Your task to perform on an android device: Open the map Image 0: 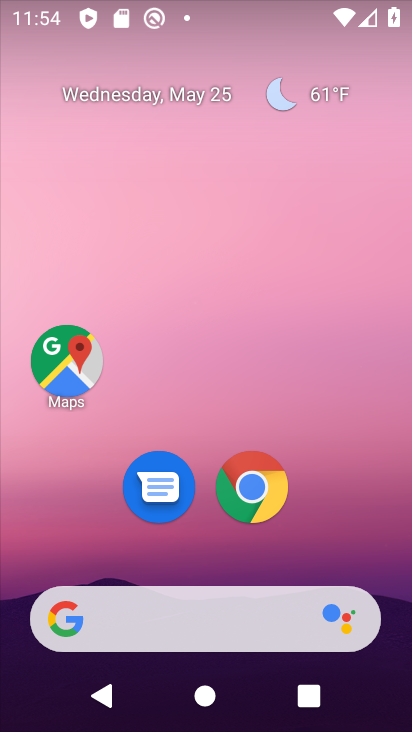
Step 0: drag from (346, 698) to (264, 140)
Your task to perform on an android device: Open the map Image 1: 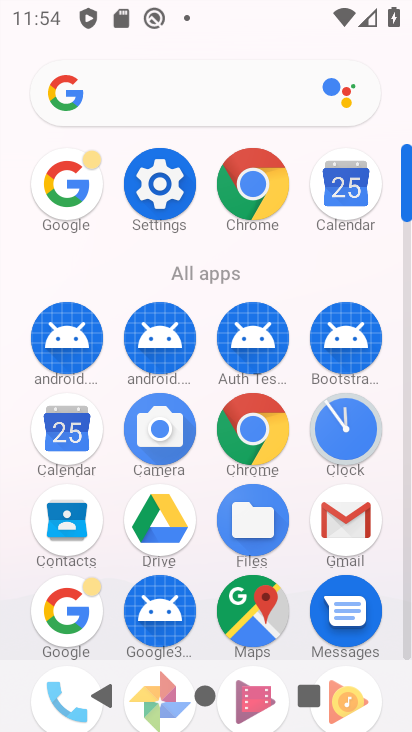
Step 1: click (255, 595)
Your task to perform on an android device: Open the map Image 2: 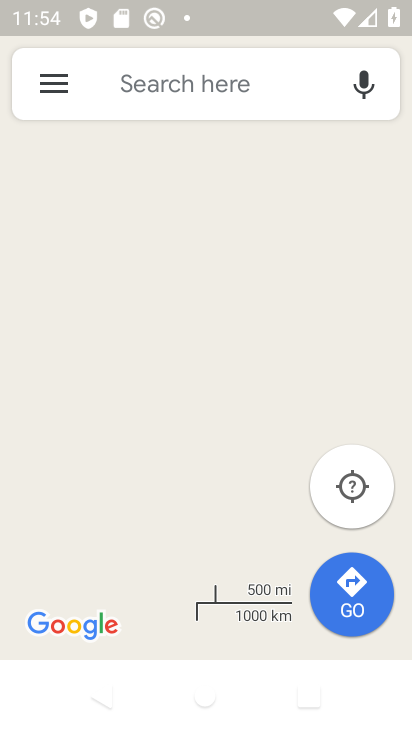
Step 2: task complete